Your task to perform on an android device: toggle notification dots Image 0: 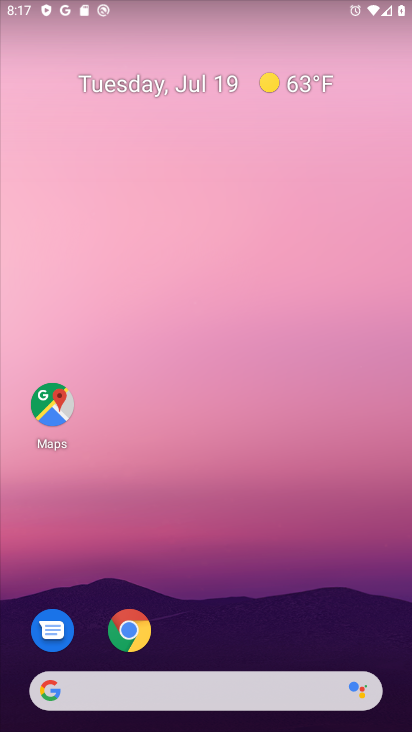
Step 0: drag from (273, 552) to (265, 3)
Your task to perform on an android device: toggle notification dots Image 1: 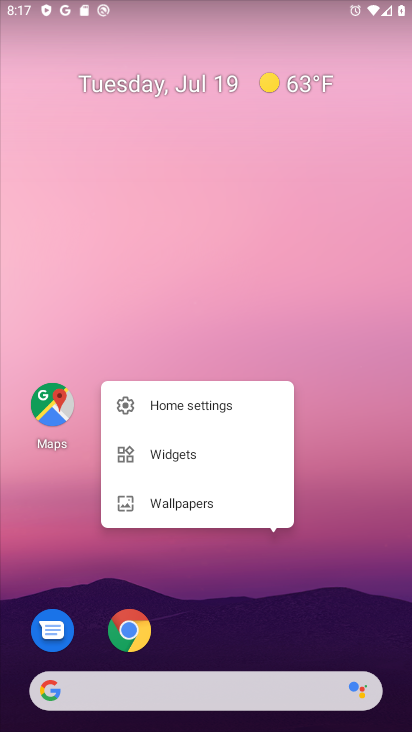
Step 1: click (349, 618)
Your task to perform on an android device: toggle notification dots Image 2: 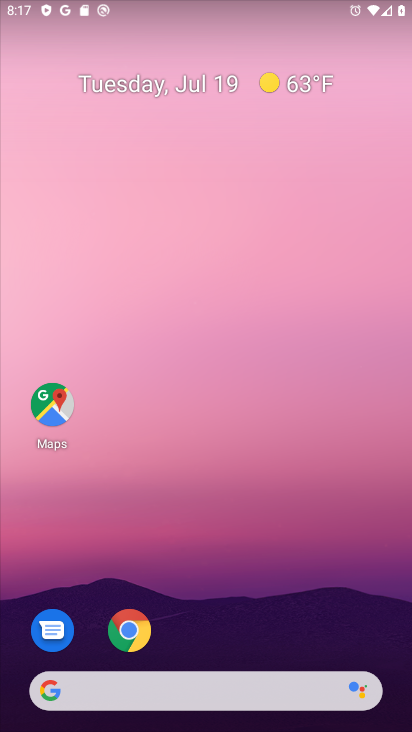
Step 2: drag from (349, 618) to (408, 1)
Your task to perform on an android device: toggle notification dots Image 3: 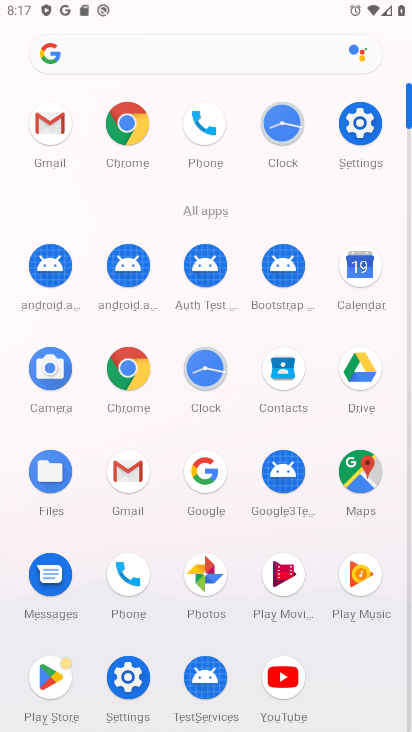
Step 3: click (367, 120)
Your task to perform on an android device: toggle notification dots Image 4: 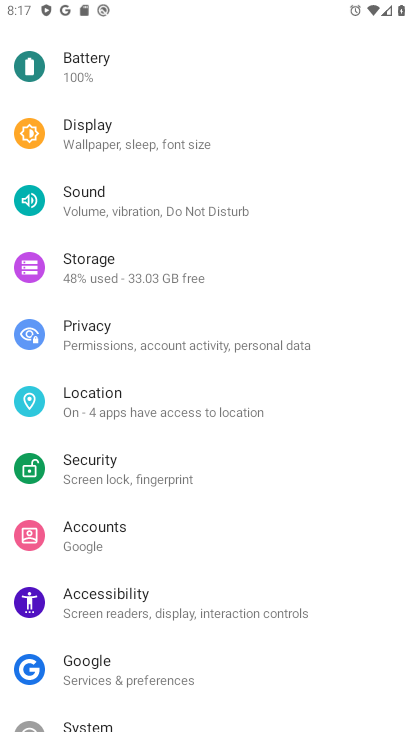
Step 4: drag from (211, 124) to (260, 519)
Your task to perform on an android device: toggle notification dots Image 5: 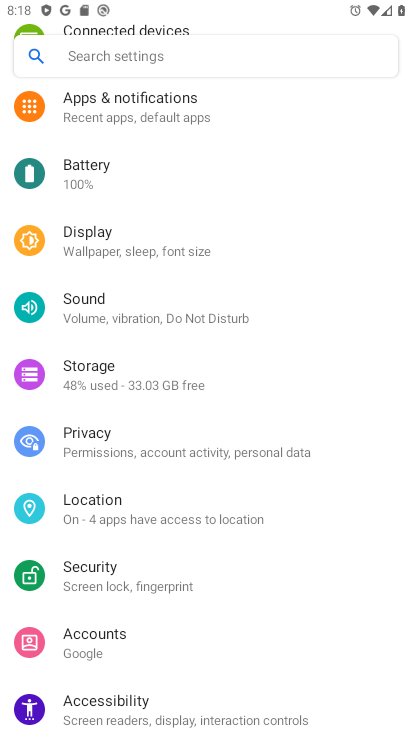
Step 5: click (229, 97)
Your task to perform on an android device: toggle notification dots Image 6: 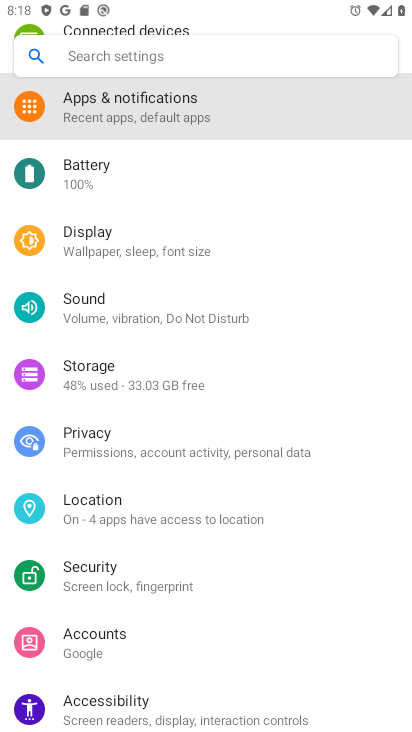
Step 6: click (229, 97)
Your task to perform on an android device: toggle notification dots Image 7: 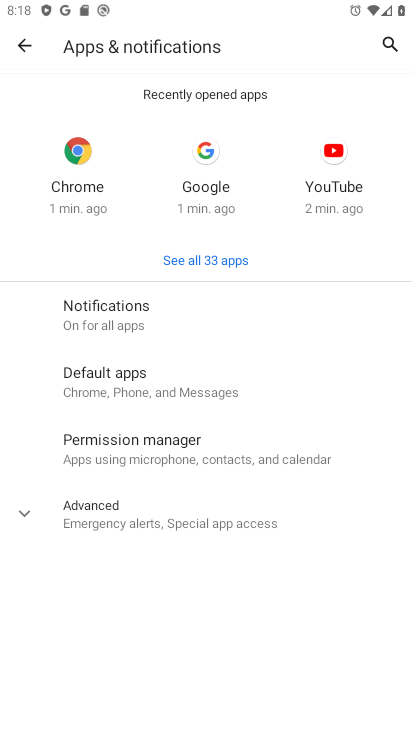
Step 7: click (185, 316)
Your task to perform on an android device: toggle notification dots Image 8: 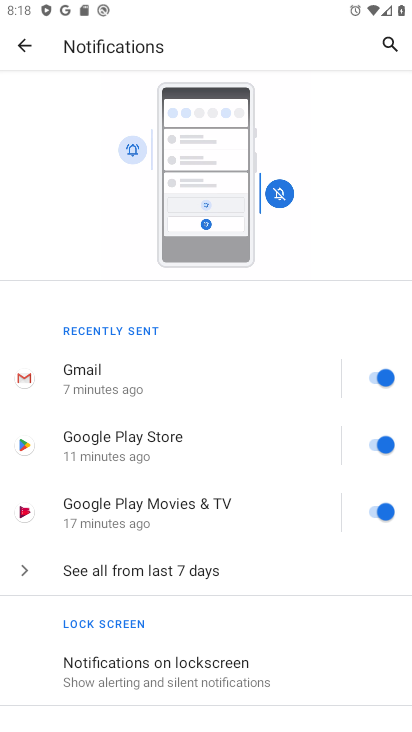
Step 8: drag from (198, 679) to (214, 309)
Your task to perform on an android device: toggle notification dots Image 9: 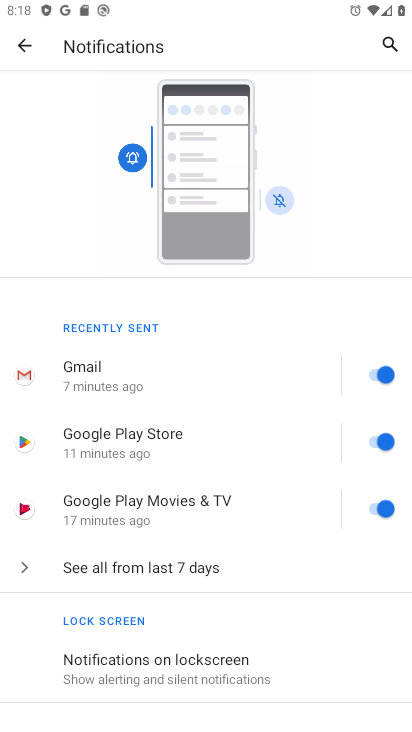
Step 9: drag from (276, 570) to (266, 350)
Your task to perform on an android device: toggle notification dots Image 10: 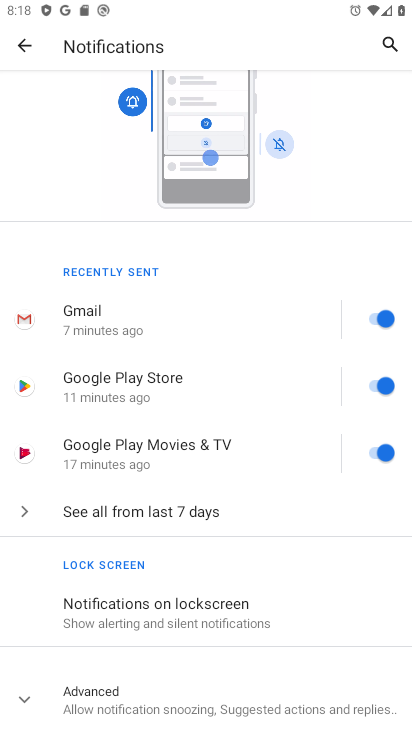
Step 10: click (296, 699)
Your task to perform on an android device: toggle notification dots Image 11: 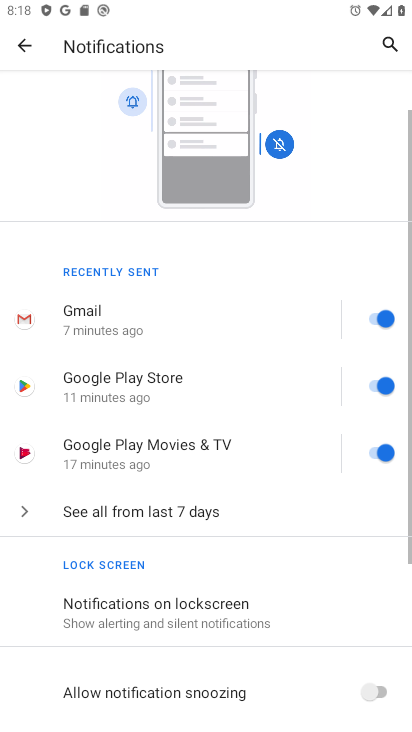
Step 11: drag from (296, 699) to (276, 468)
Your task to perform on an android device: toggle notification dots Image 12: 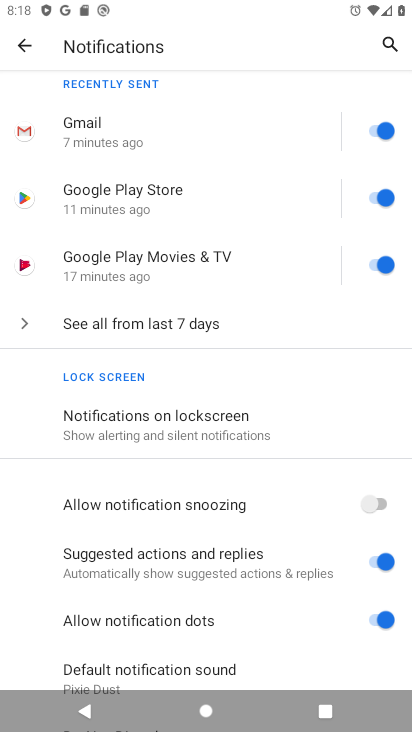
Step 12: click (376, 622)
Your task to perform on an android device: toggle notification dots Image 13: 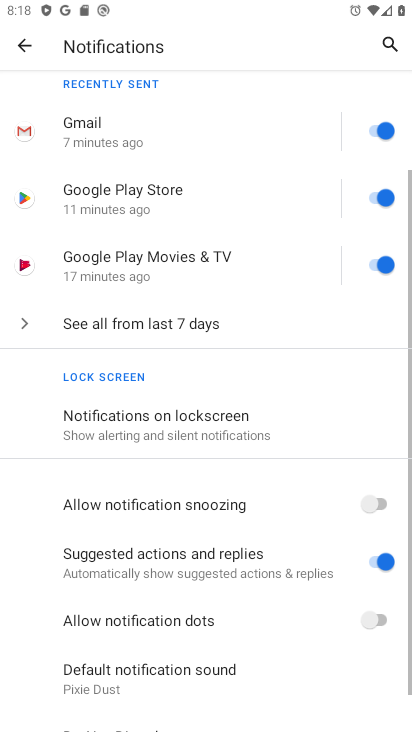
Step 13: task complete